Your task to perform on an android device: empty trash in the gmail app Image 0: 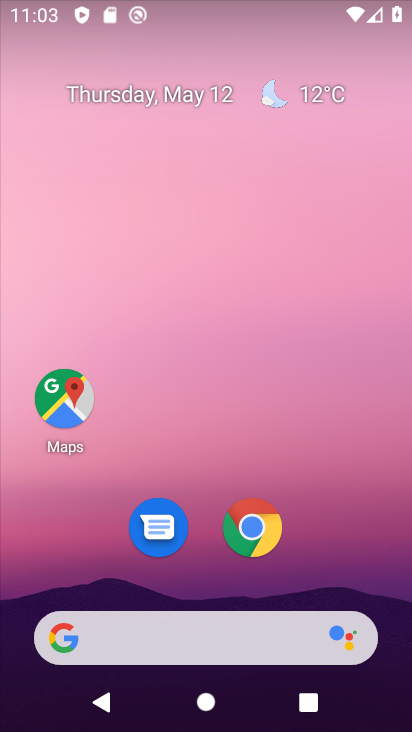
Step 0: press home button
Your task to perform on an android device: empty trash in the gmail app Image 1: 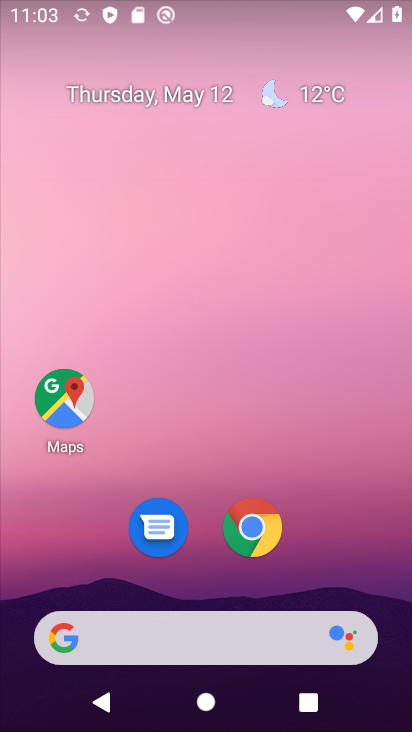
Step 1: drag from (42, 563) to (244, 94)
Your task to perform on an android device: empty trash in the gmail app Image 2: 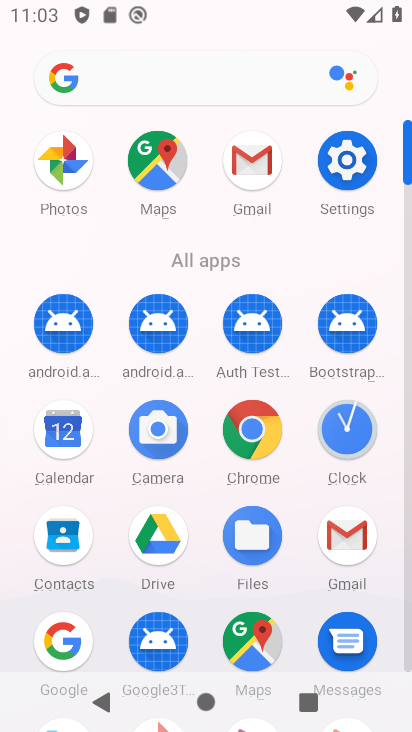
Step 2: click (363, 531)
Your task to perform on an android device: empty trash in the gmail app Image 3: 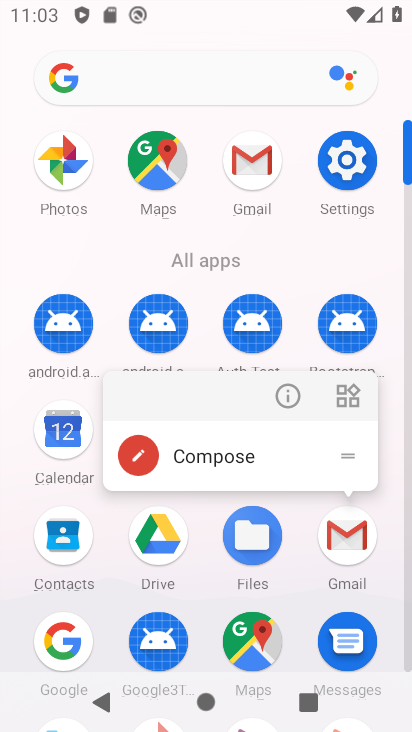
Step 3: click (247, 175)
Your task to perform on an android device: empty trash in the gmail app Image 4: 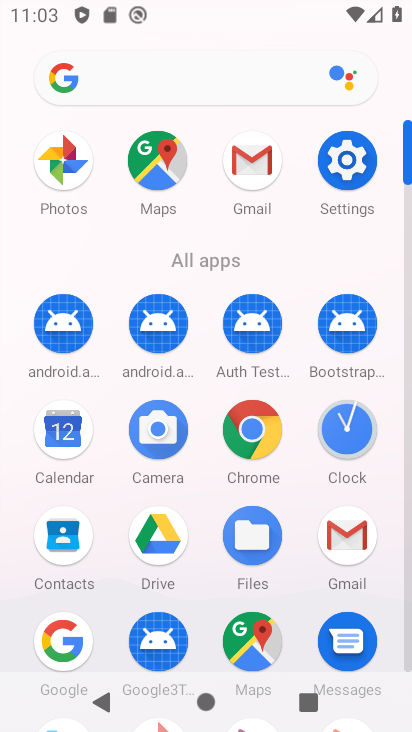
Step 4: click (246, 158)
Your task to perform on an android device: empty trash in the gmail app Image 5: 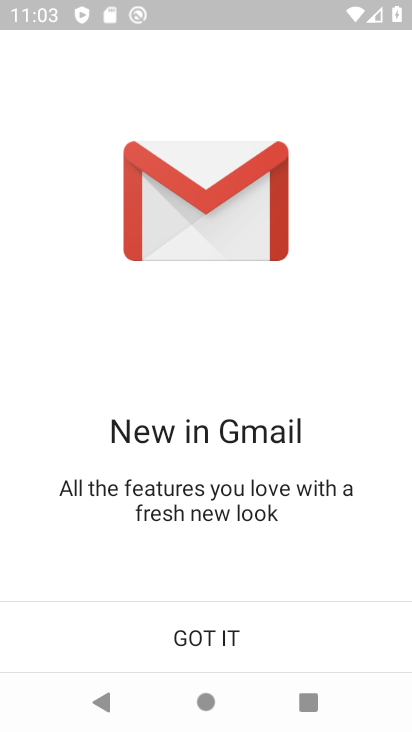
Step 5: click (190, 618)
Your task to perform on an android device: empty trash in the gmail app Image 6: 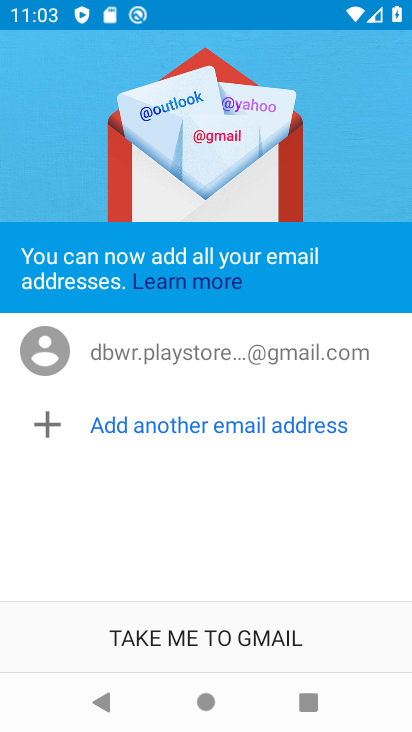
Step 6: click (213, 637)
Your task to perform on an android device: empty trash in the gmail app Image 7: 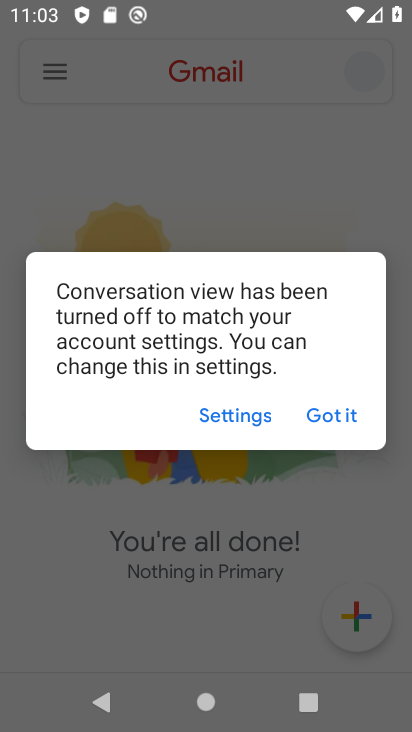
Step 7: click (303, 408)
Your task to perform on an android device: empty trash in the gmail app Image 8: 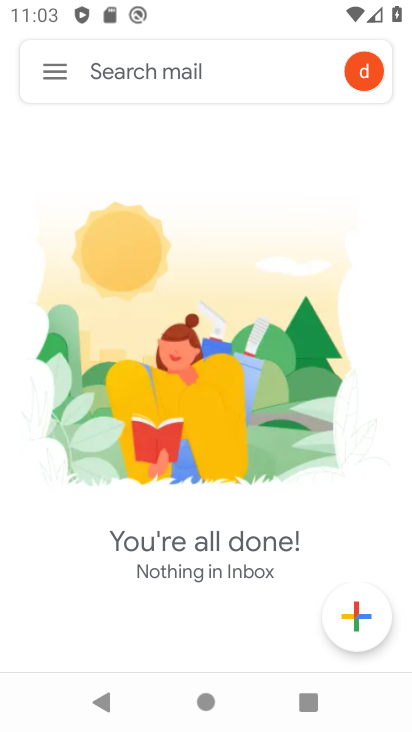
Step 8: click (46, 83)
Your task to perform on an android device: empty trash in the gmail app Image 9: 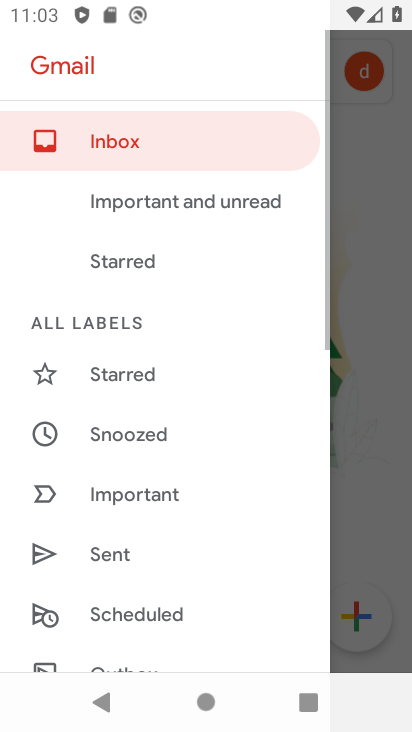
Step 9: drag from (52, 611) to (259, 119)
Your task to perform on an android device: empty trash in the gmail app Image 10: 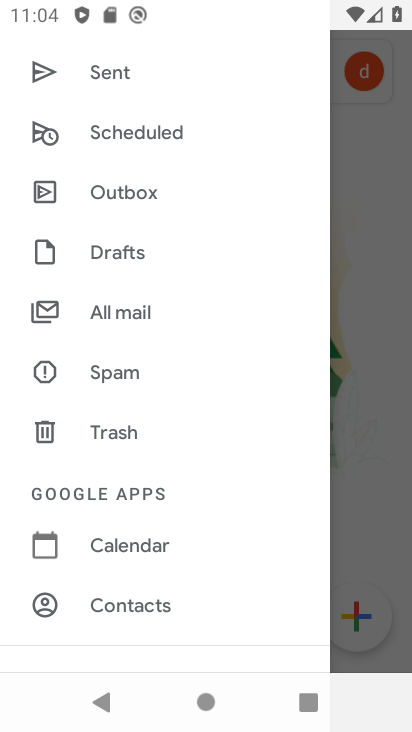
Step 10: click (136, 418)
Your task to perform on an android device: empty trash in the gmail app Image 11: 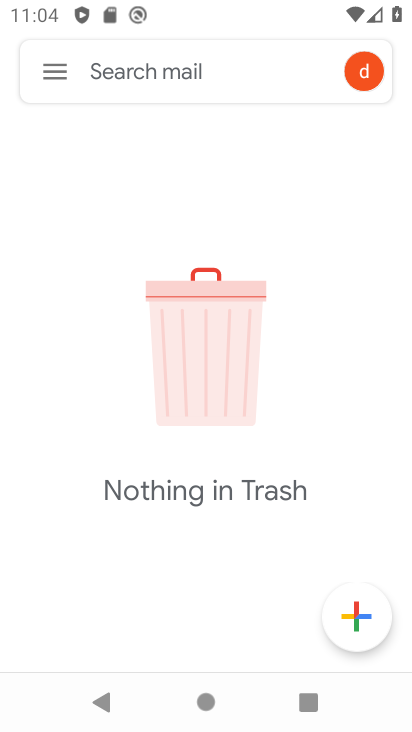
Step 11: task complete